Your task to perform on an android device: check battery use Image 0: 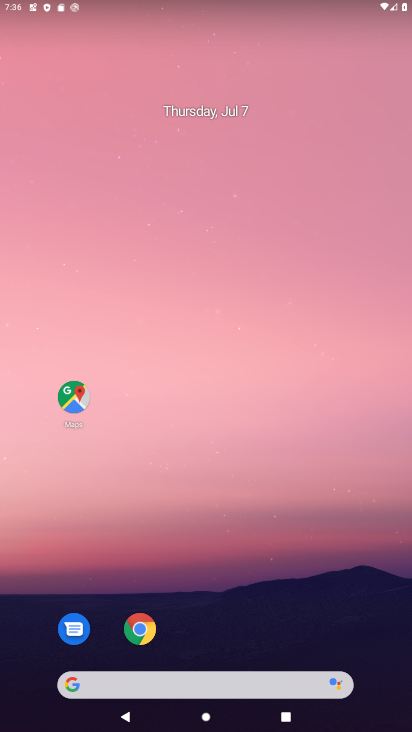
Step 0: drag from (349, 612) to (365, 136)
Your task to perform on an android device: check battery use Image 1: 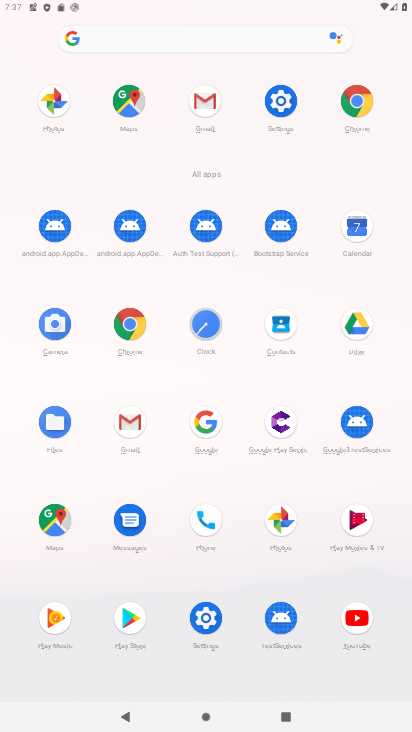
Step 1: click (203, 618)
Your task to perform on an android device: check battery use Image 2: 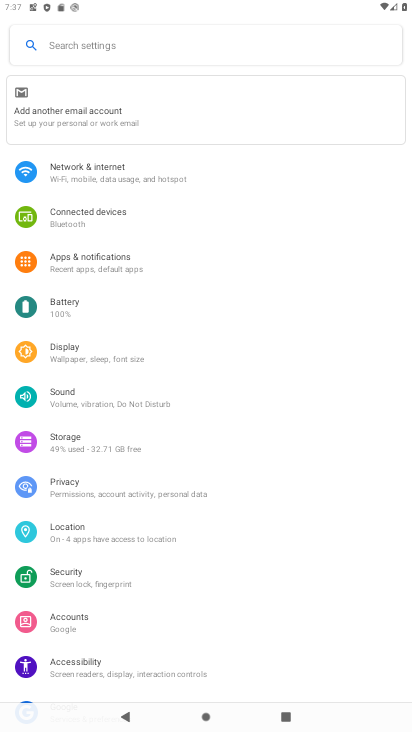
Step 2: click (89, 304)
Your task to perform on an android device: check battery use Image 3: 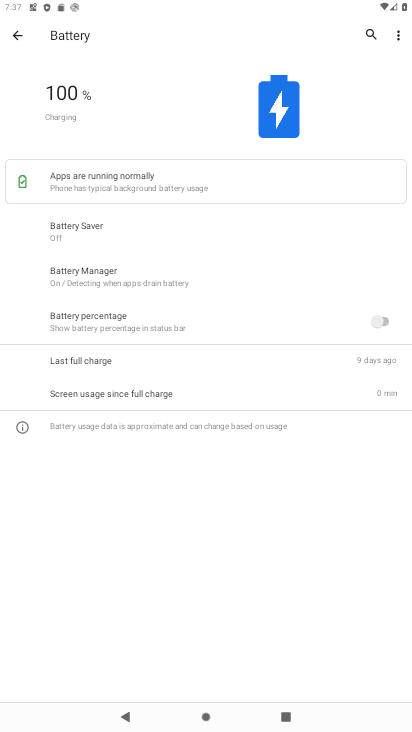
Step 3: click (399, 39)
Your task to perform on an android device: check battery use Image 4: 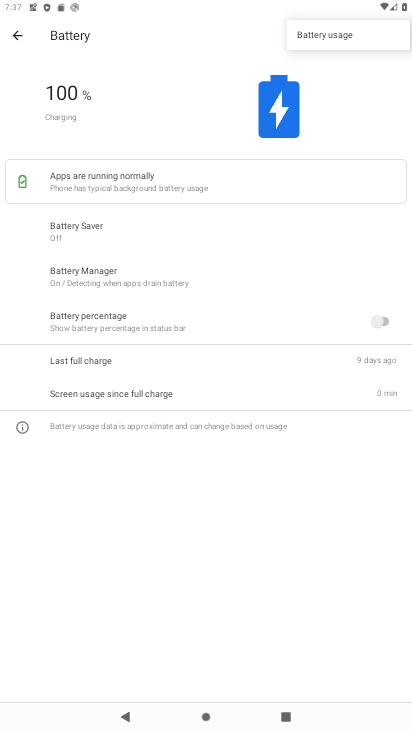
Step 4: click (357, 34)
Your task to perform on an android device: check battery use Image 5: 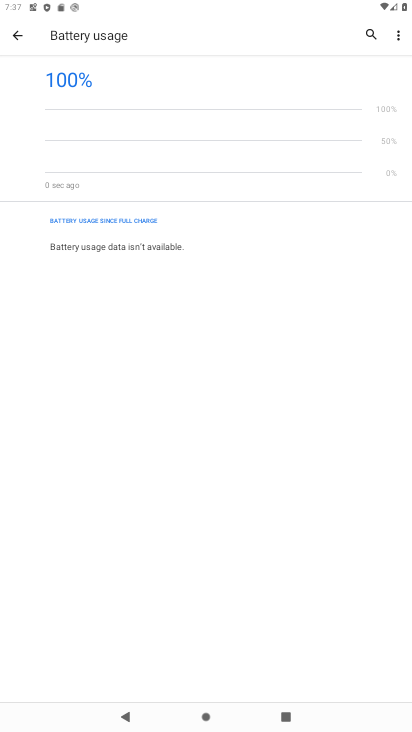
Step 5: task complete